Your task to perform on an android device: change text size in settings app Image 0: 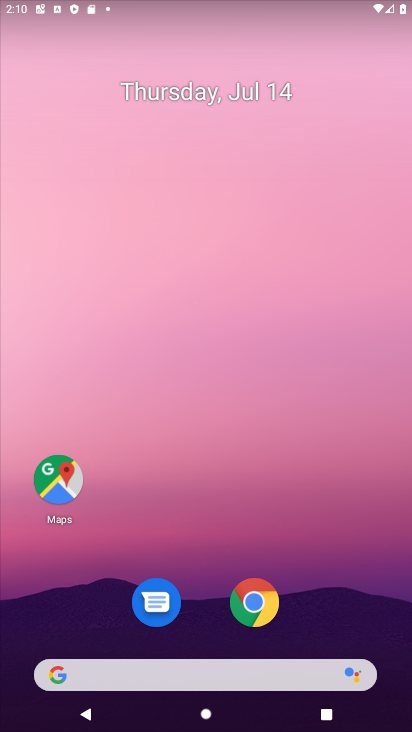
Step 0: drag from (386, 639) to (345, 206)
Your task to perform on an android device: change text size in settings app Image 1: 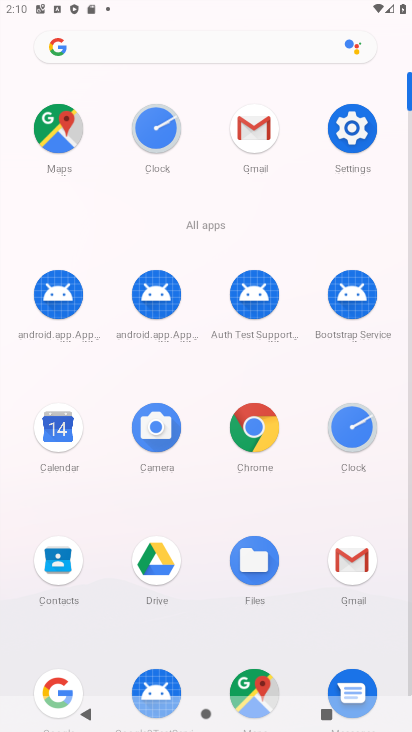
Step 1: click (410, 689)
Your task to perform on an android device: change text size in settings app Image 2: 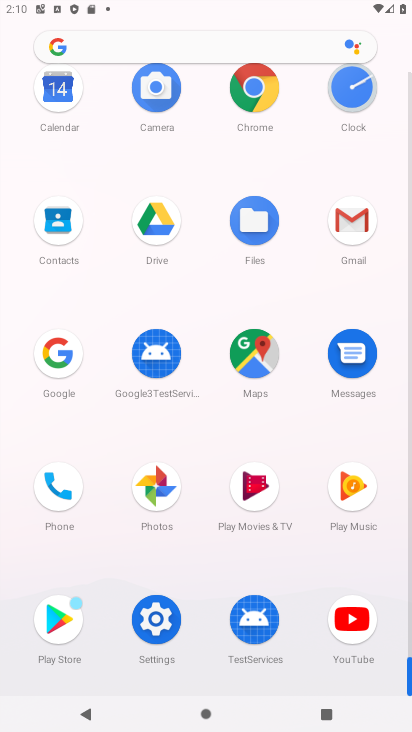
Step 2: click (153, 617)
Your task to perform on an android device: change text size in settings app Image 3: 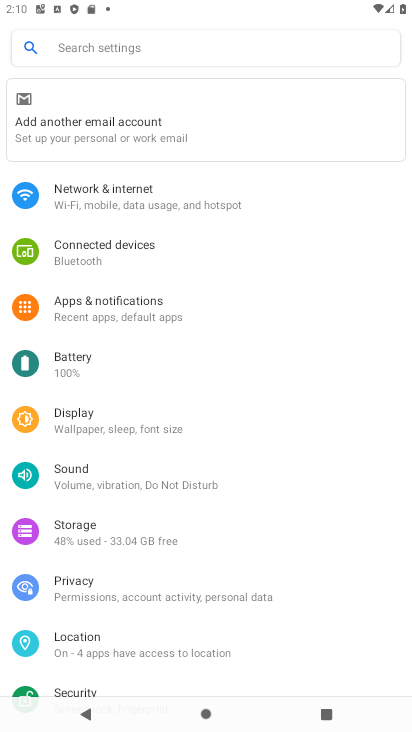
Step 3: click (69, 414)
Your task to perform on an android device: change text size in settings app Image 4: 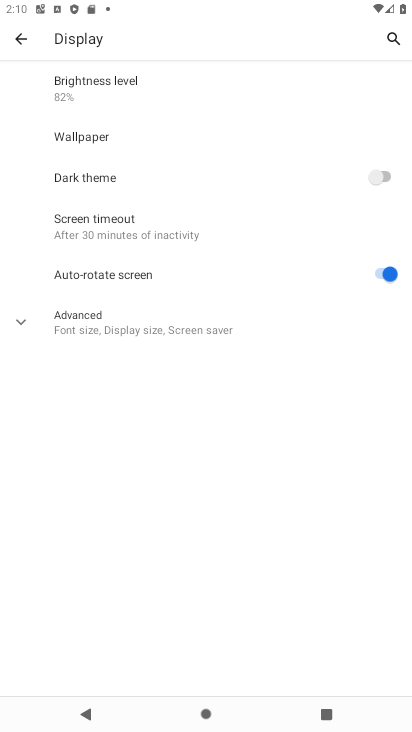
Step 4: click (23, 322)
Your task to perform on an android device: change text size in settings app Image 5: 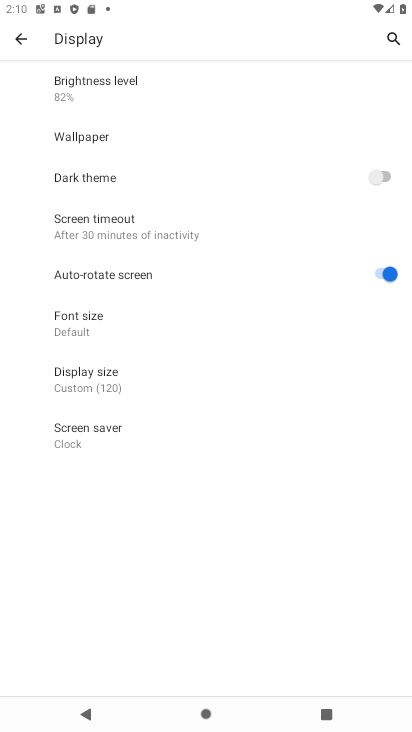
Step 5: click (74, 317)
Your task to perform on an android device: change text size in settings app Image 6: 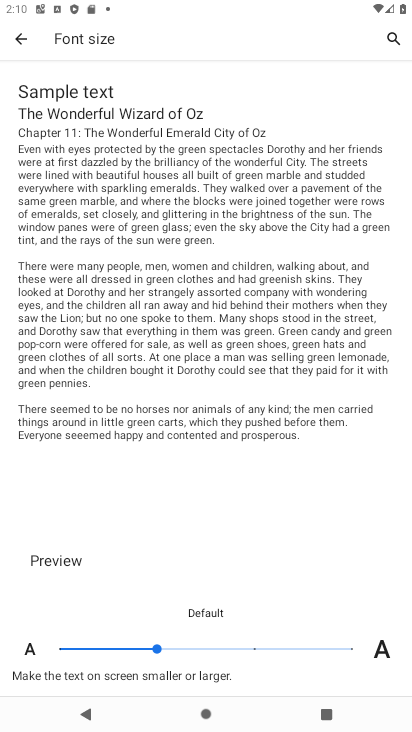
Step 6: click (354, 645)
Your task to perform on an android device: change text size in settings app Image 7: 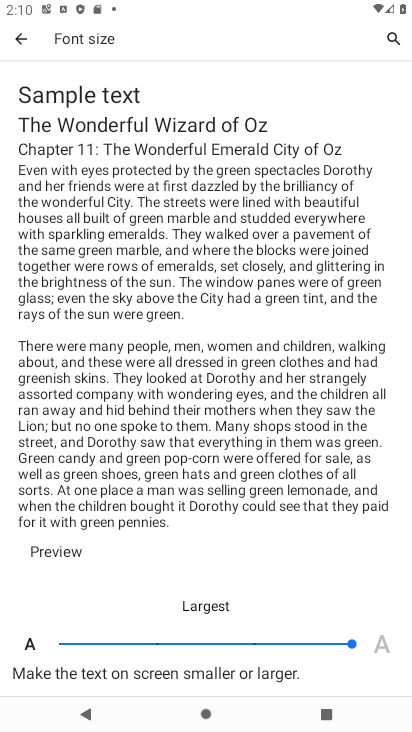
Step 7: task complete